Your task to perform on an android device: turn on the 12-hour format for clock Image 0: 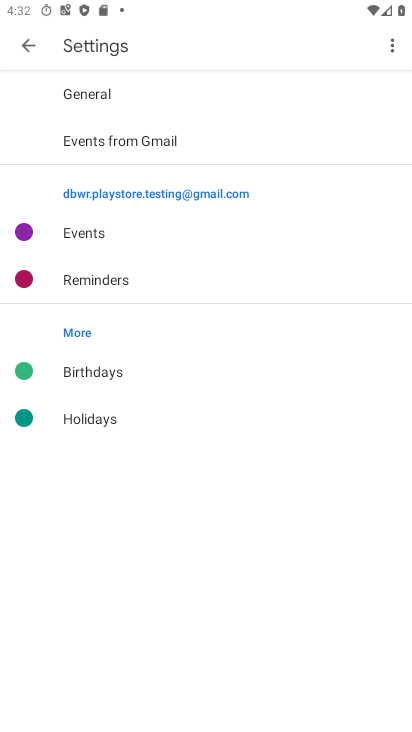
Step 0: press back button
Your task to perform on an android device: turn on the 12-hour format for clock Image 1: 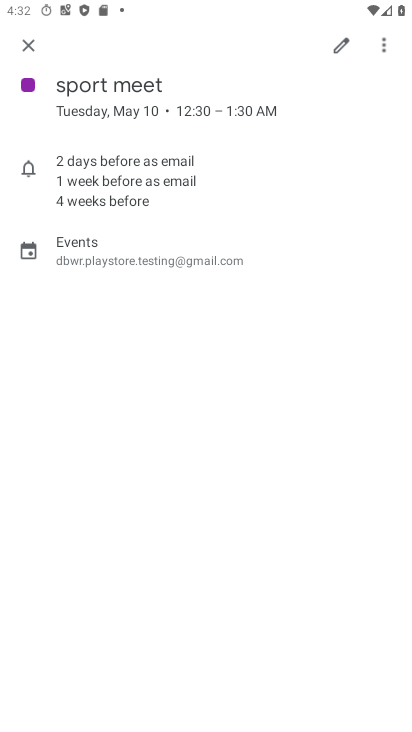
Step 1: press back button
Your task to perform on an android device: turn on the 12-hour format for clock Image 2: 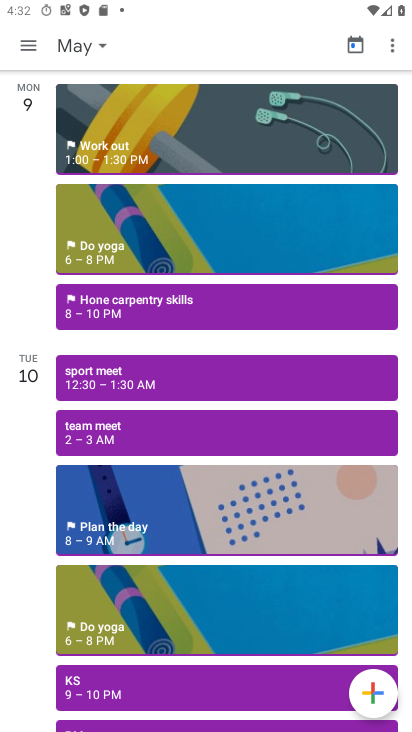
Step 2: press back button
Your task to perform on an android device: turn on the 12-hour format for clock Image 3: 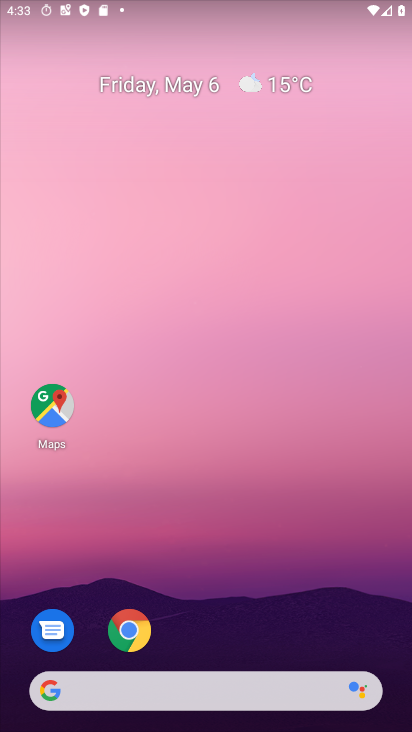
Step 3: drag from (243, 339) to (254, 52)
Your task to perform on an android device: turn on the 12-hour format for clock Image 4: 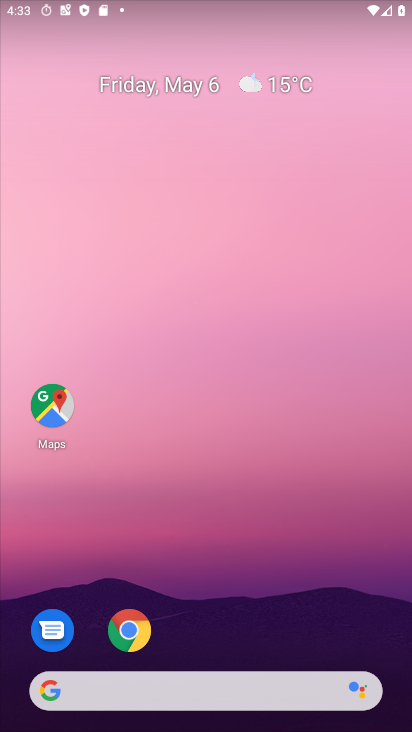
Step 4: click (328, 8)
Your task to perform on an android device: turn on the 12-hour format for clock Image 5: 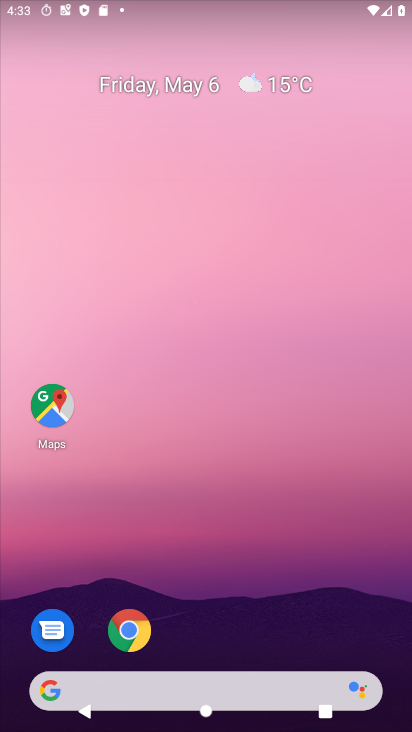
Step 5: drag from (218, 545) to (314, 92)
Your task to perform on an android device: turn on the 12-hour format for clock Image 6: 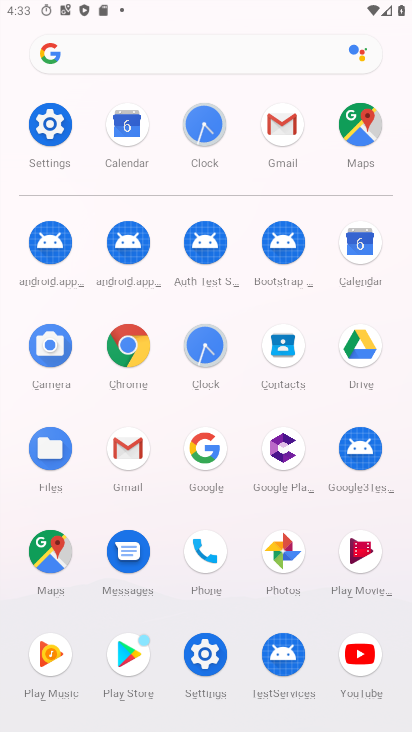
Step 6: click (201, 114)
Your task to perform on an android device: turn on the 12-hour format for clock Image 7: 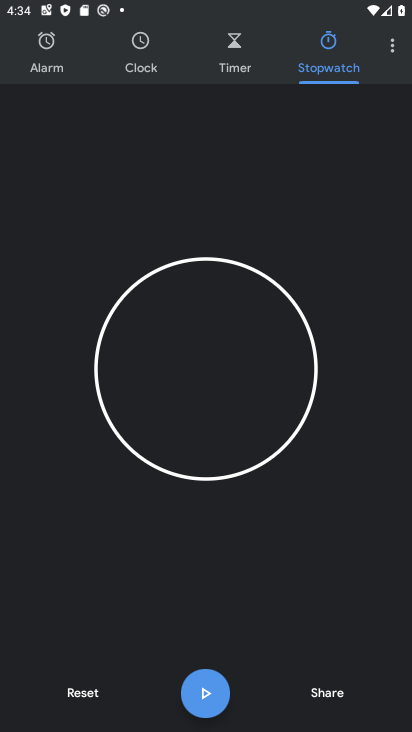
Step 7: drag from (391, 52) to (345, 168)
Your task to perform on an android device: turn on the 12-hour format for clock Image 8: 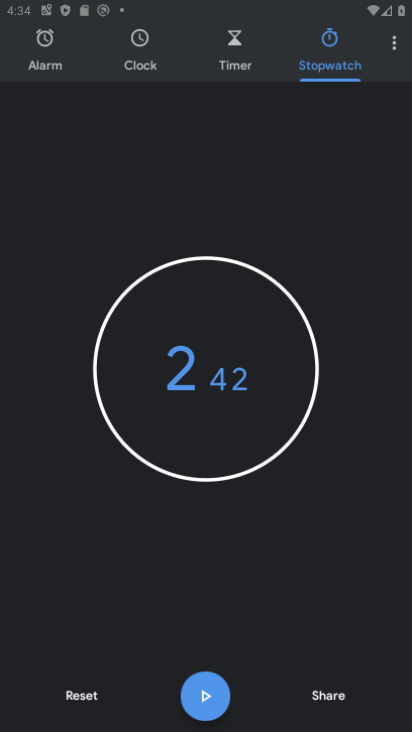
Step 8: click (386, 41)
Your task to perform on an android device: turn on the 12-hour format for clock Image 9: 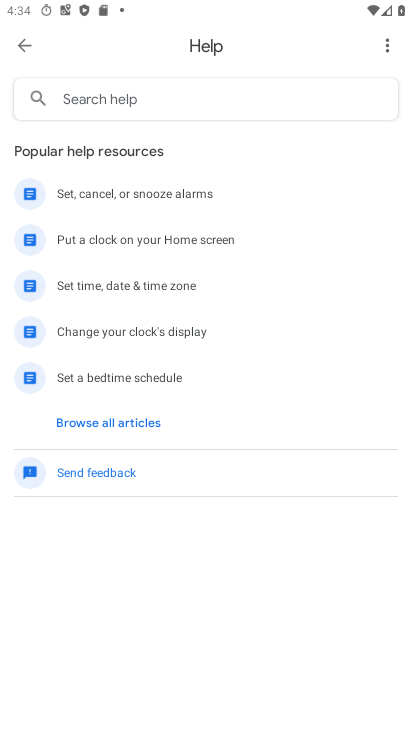
Step 9: press back button
Your task to perform on an android device: turn on the 12-hour format for clock Image 10: 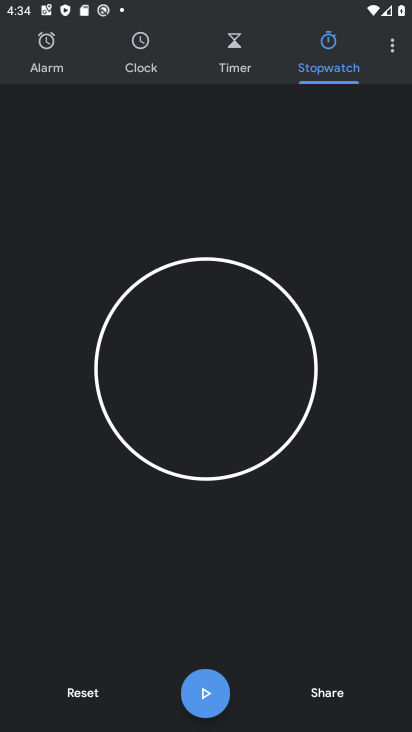
Step 10: click (394, 39)
Your task to perform on an android device: turn on the 12-hour format for clock Image 11: 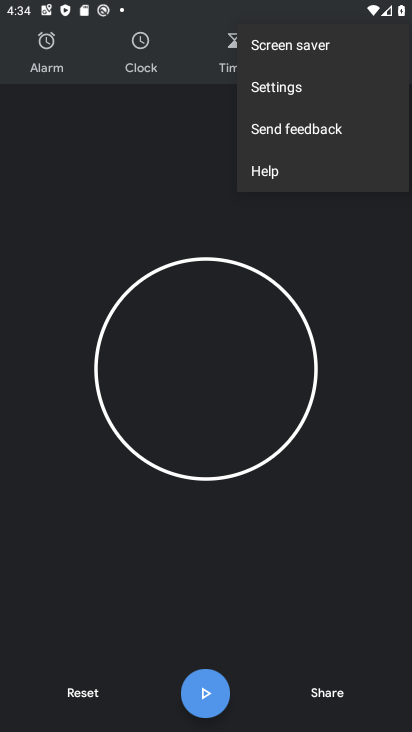
Step 11: click (259, 85)
Your task to perform on an android device: turn on the 12-hour format for clock Image 12: 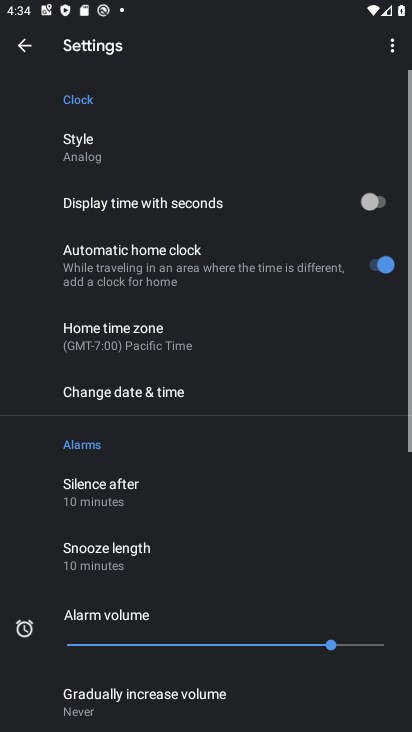
Step 12: drag from (191, 647) to (251, 143)
Your task to perform on an android device: turn on the 12-hour format for clock Image 13: 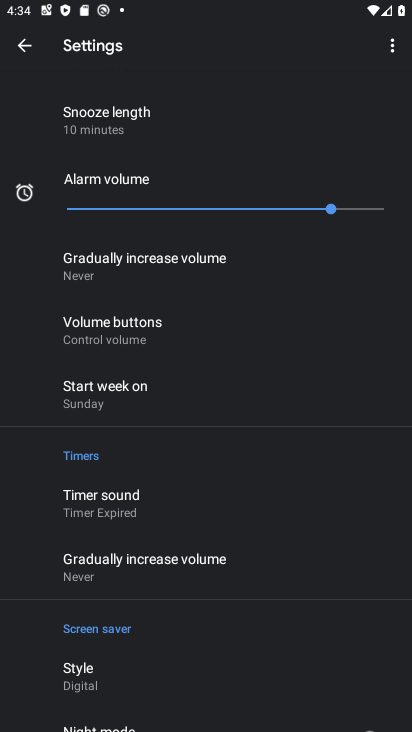
Step 13: drag from (162, 217) to (167, 670)
Your task to perform on an android device: turn on the 12-hour format for clock Image 14: 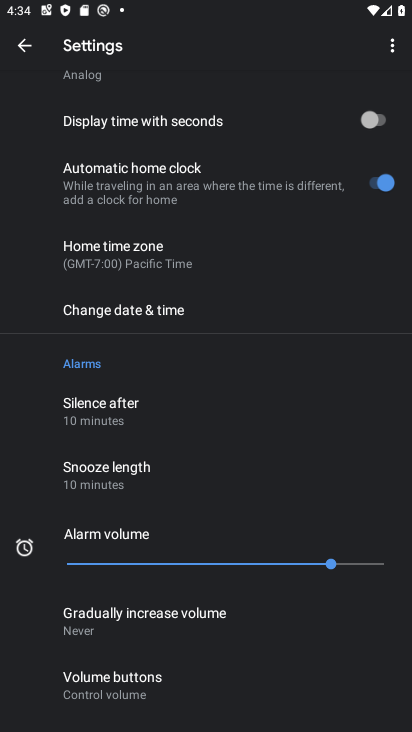
Step 14: click (177, 311)
Your task to perform on an android device: turn on the 12-hour format for clock Image 15: 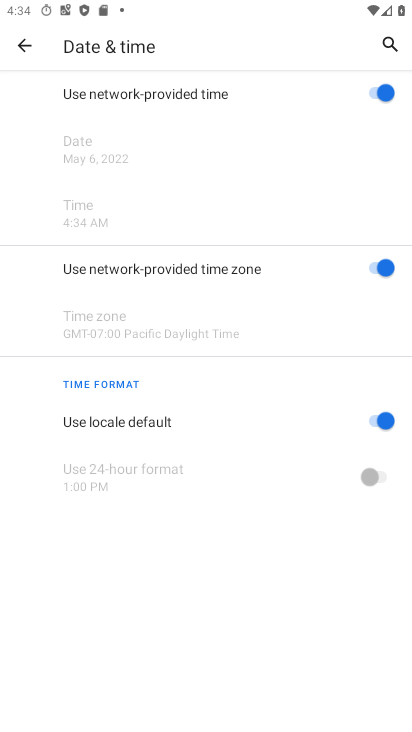
Step 15: task complete